Your task to perform on an android device: Go to calendar. Show me events next week Image 0: 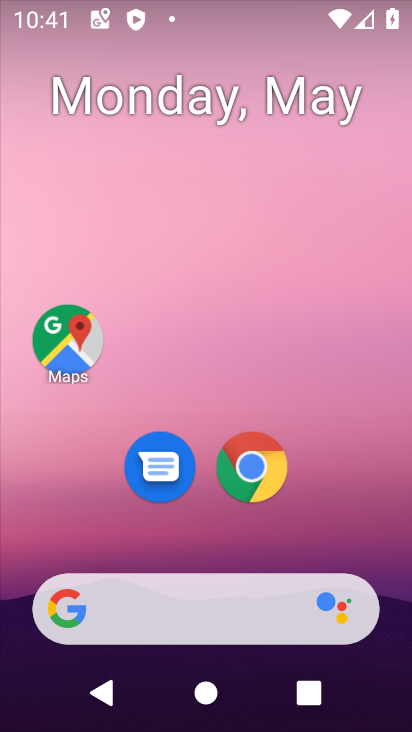
Step 0: click (360, 68)
Your task to perform on an android device: Go to calendar. Show me events next week Image 1: 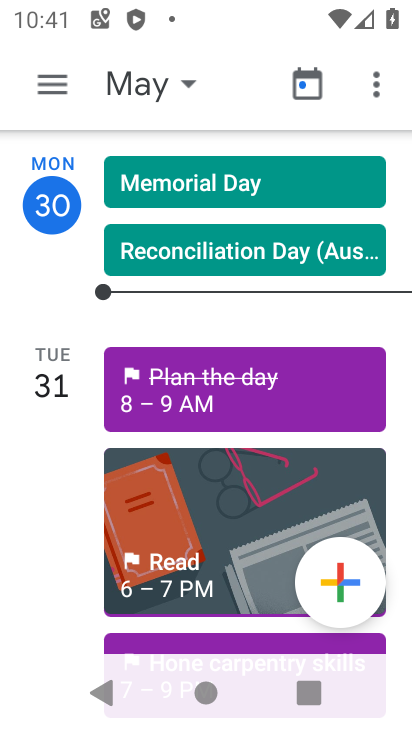
Step 1: click (374, 83)
Your task to perform on an android device: Go to calendar. Show me events next week Image 2: 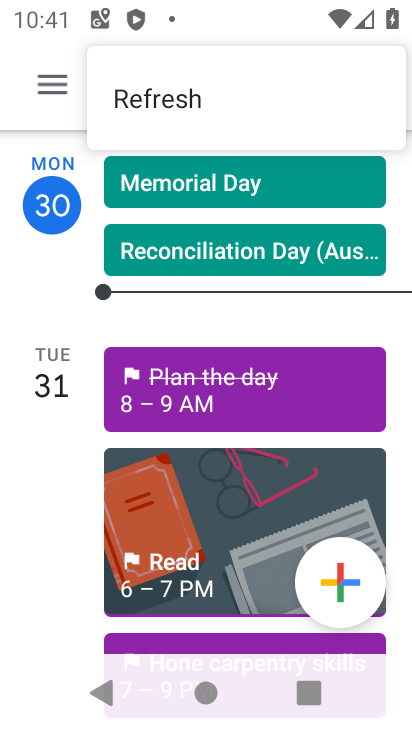
Step 2: click (18, 105)
Your task to perform on an android device: Go to calendar. Show me events next week Image 3: 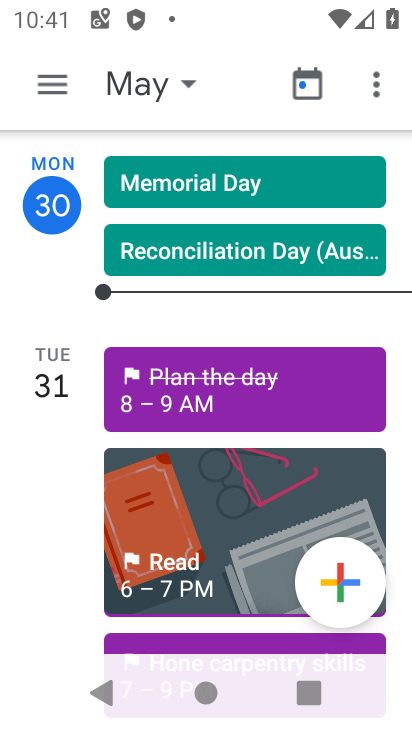
Step 3: click (373, 89)
Your task to perform on an android device: Go to calendar. Show me events next week Image 4: 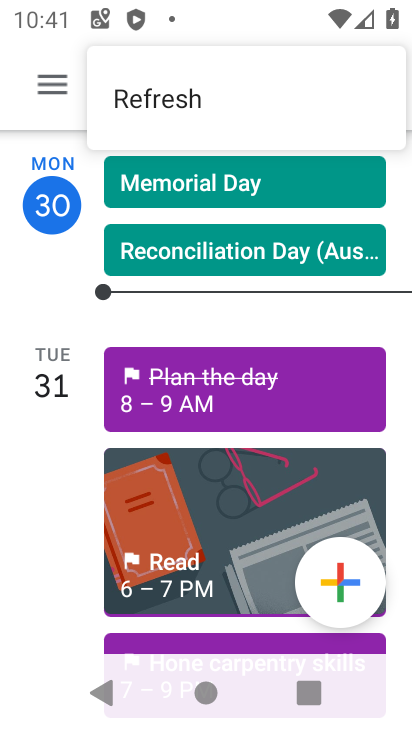
Step 4: click (34, 97)
Your task to perform on an android device: Go to calendar. Show me events next week Image 5: 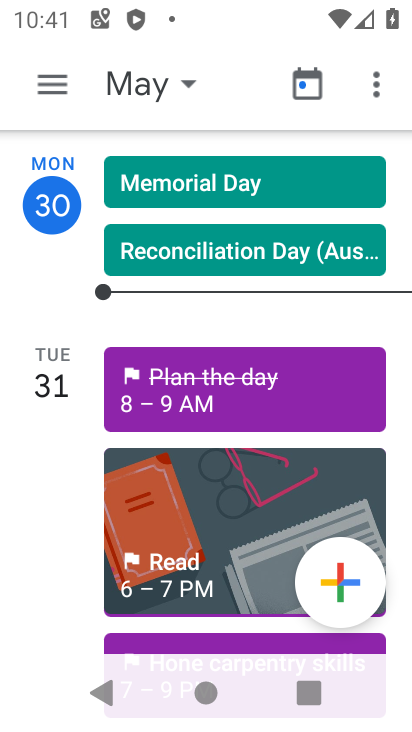
Step 5: click (54, 88)
Your task to perform on an android device: Go to calendar. Show me events next week Image 6: 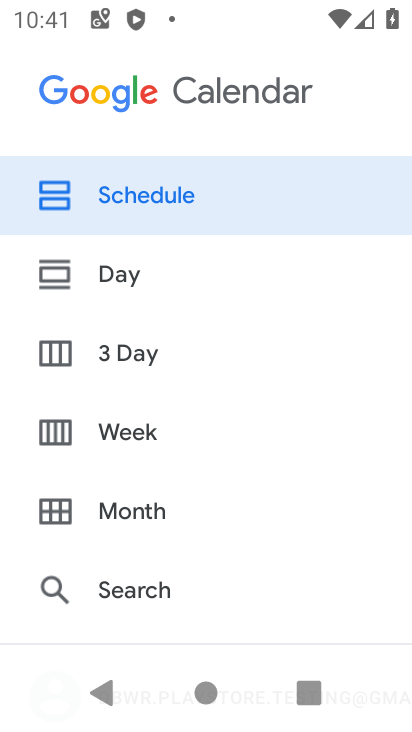
Step 6: click (102, 420)
Your task to perform on an android device: Go to calendar. Show me events next week Image 7: 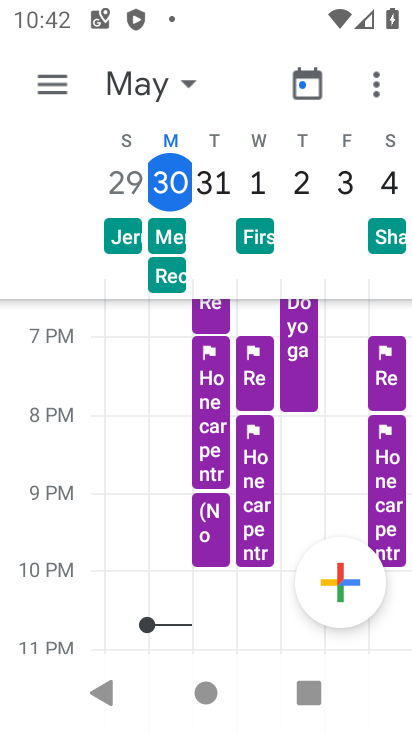
Step 7: click (191, 82)
Your task to perform on an android device: Go to calendar. Show me events next week Image 8: 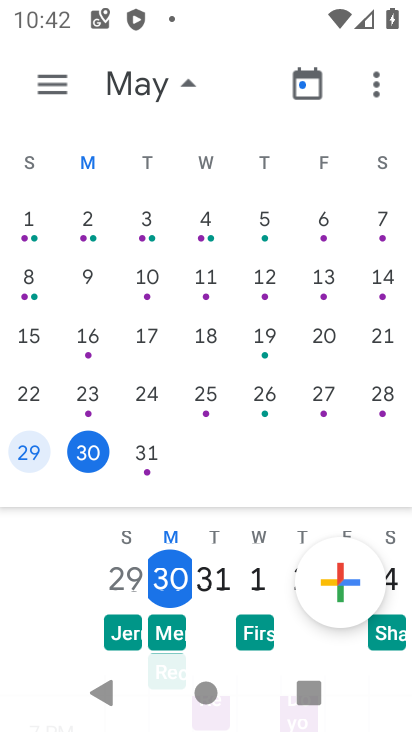
Step 8: drag from (206, 214) to (50, 211)
Your task to perform on an android device: Go to calendar. Show me events next week Image 9: 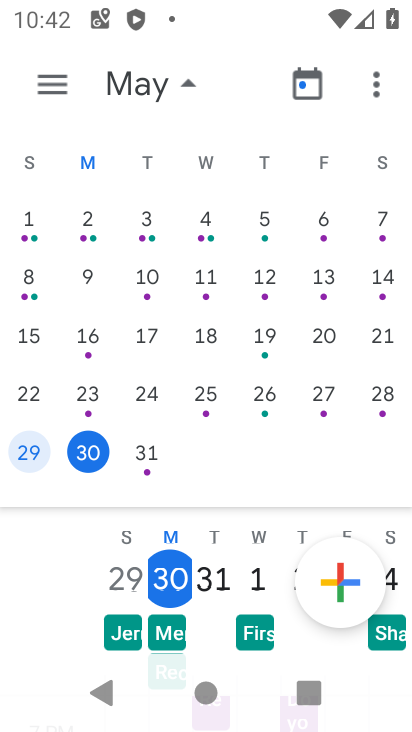
Step 9: drag from (397, 308) to (79, 263)
Your task to perform on an android device: Go to calendar. Show me events next week Image 10: 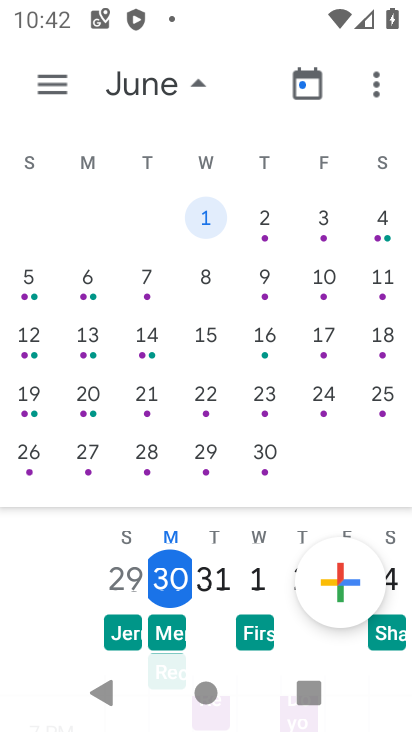
Step 10: click (260, 269)
Your task to perform on an android device: Go to calendar. Show me events next week Image 11: 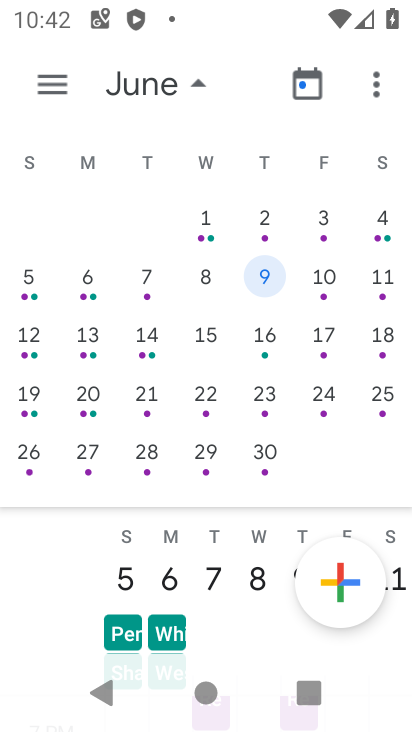
Step 11: task complete